Your task to perform on an android device: Check the weather Image 0: 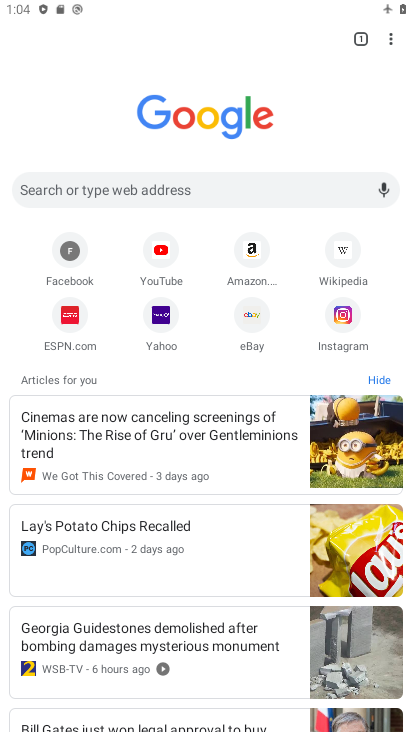
Step 0: press home button
Your task to perform on an android device: Check the weather Image 1: 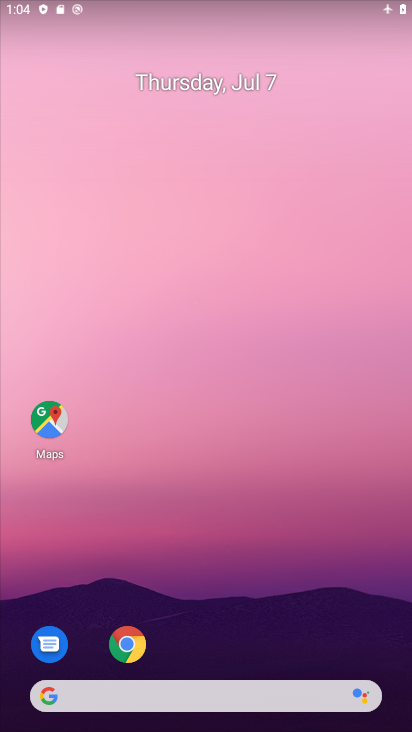
Step 1: drag from (240, 546) to (214, 88)
Your task to perform on an android device: Check the weather Image 2: 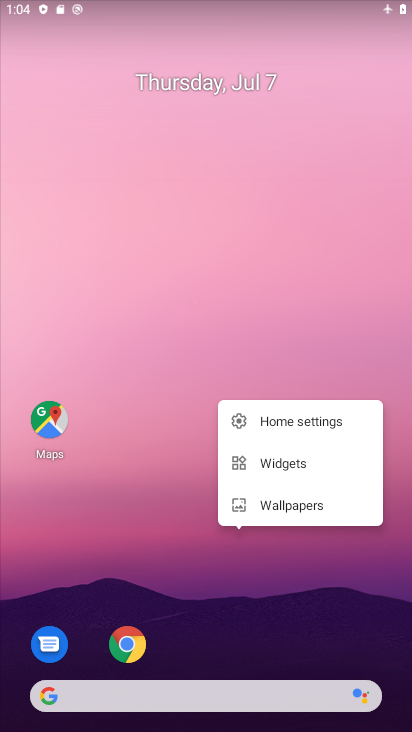
Step 2: drag from (188, 605) to (138, 56)
Your task to perform on an android device: Check the weather Image 3: 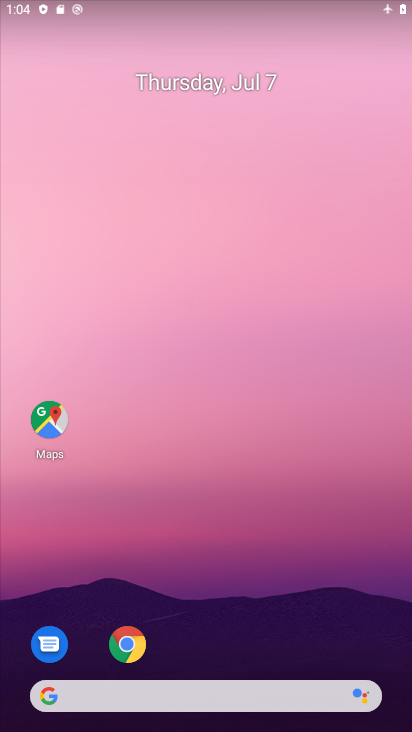
Step 3: drag from (228, 566) to (222, 85)
Your task to perform on an android device: Check the weather Image 4: 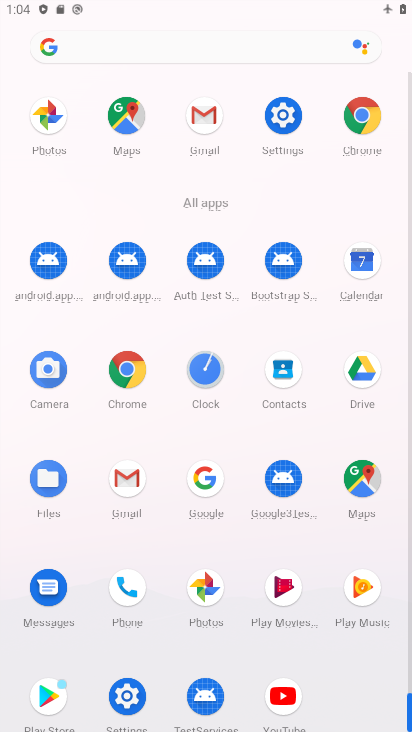
Step 4: click (202, 479)
Your task to perform on an android device: Check the weather Image 5: 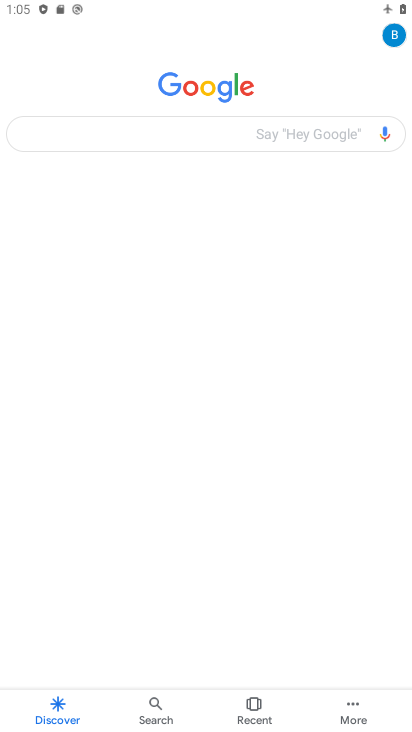
Step 5: click (230, 134)
Your task to perform on an android device: Check the weather Image 6: 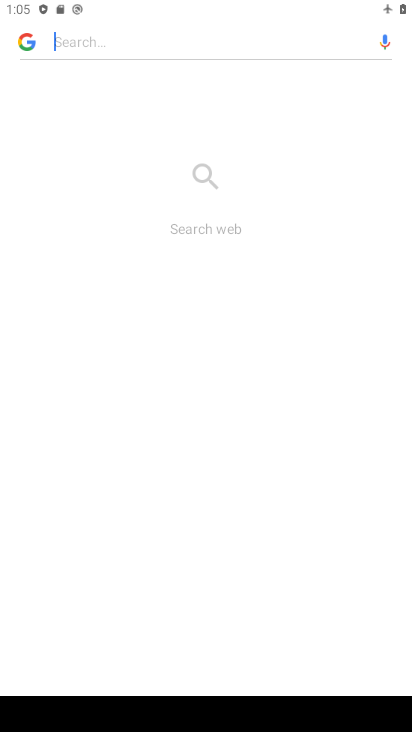
Step 6: type "weather"
Your task to perform on an android device: Check the weather Image 7: 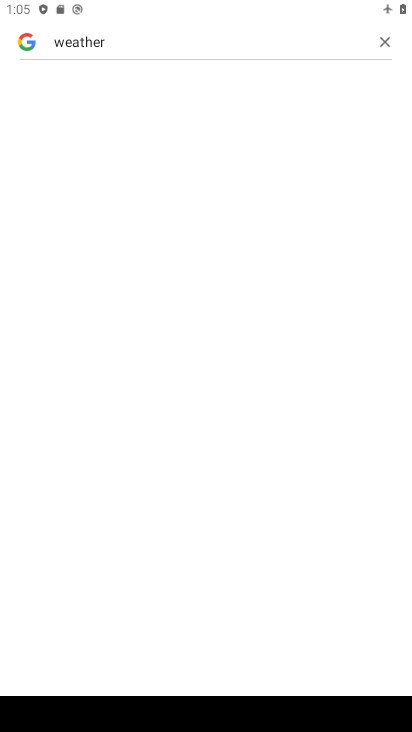
Step 7: task complete